Your task to perform on an android device: Toggle the flashlight Image 0: 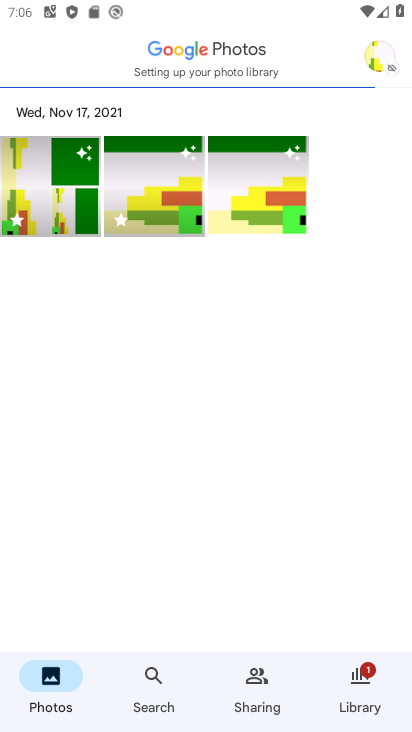
Step 0: press home button
Your task to perform on an android device: Toggle the flashlight Image 1: 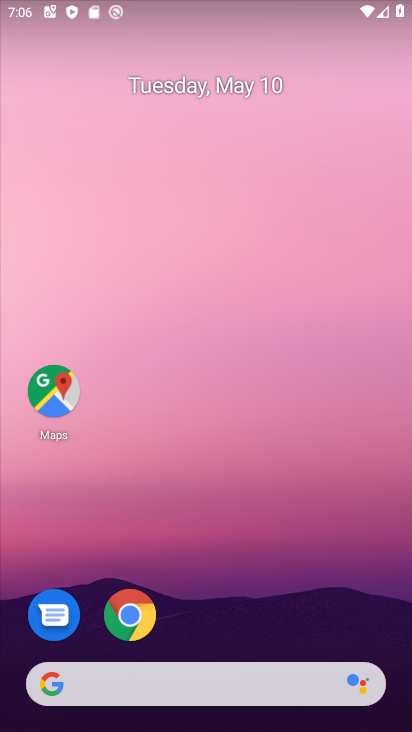
Step 1: drag from (232, 540) to (117, 78)
Your task to perform on an android device: Toggle the flashlight Image 2: 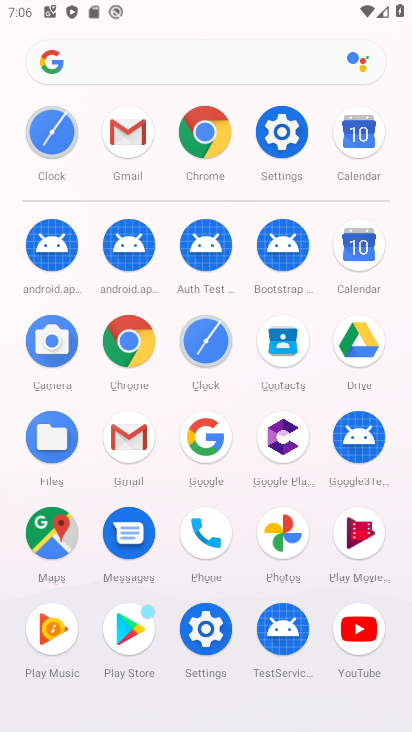
Step 2: click (281, 132)
Your task to perform on an android device: Toggle the flashlight Image 3: 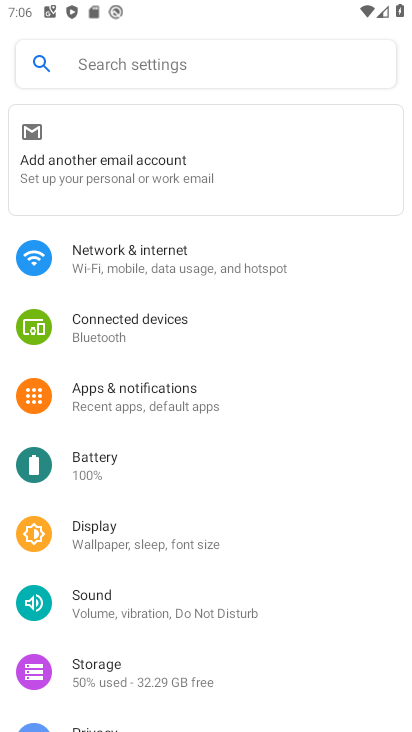
Step 3: click (132, 384)
Your task to perform on an android device: Toggle the flashlight Image 4: 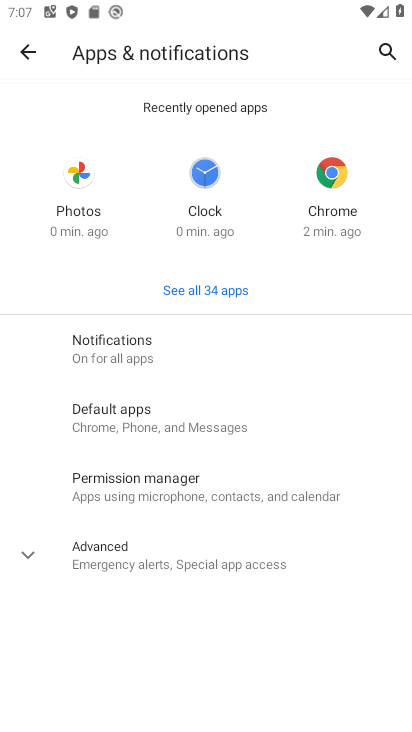
Step 4: click (26, 47)
Your task to perform on an android device: Toggle the flashlight Image 5: 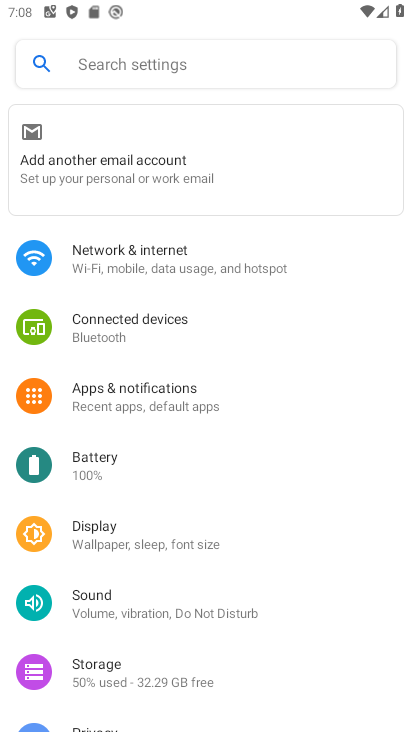
Step 5: click (107, 323)
Your task to perform on an android device: Toggle the flashlight Image 6: 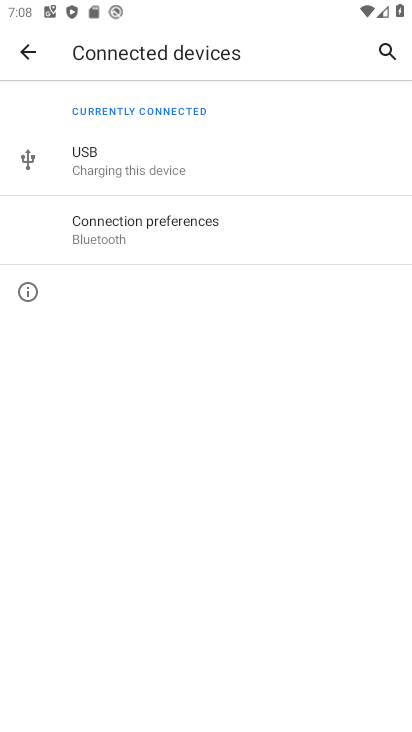
Step 6: click (21, 47)
Your task to perform on an android device: Toggle the flashlight Image 7: 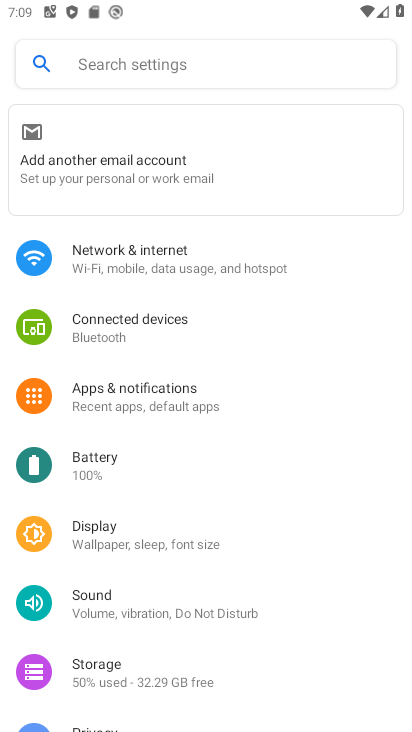
Step 7: task complete